Your task to perform on an android device: Open the calendar Image 0: 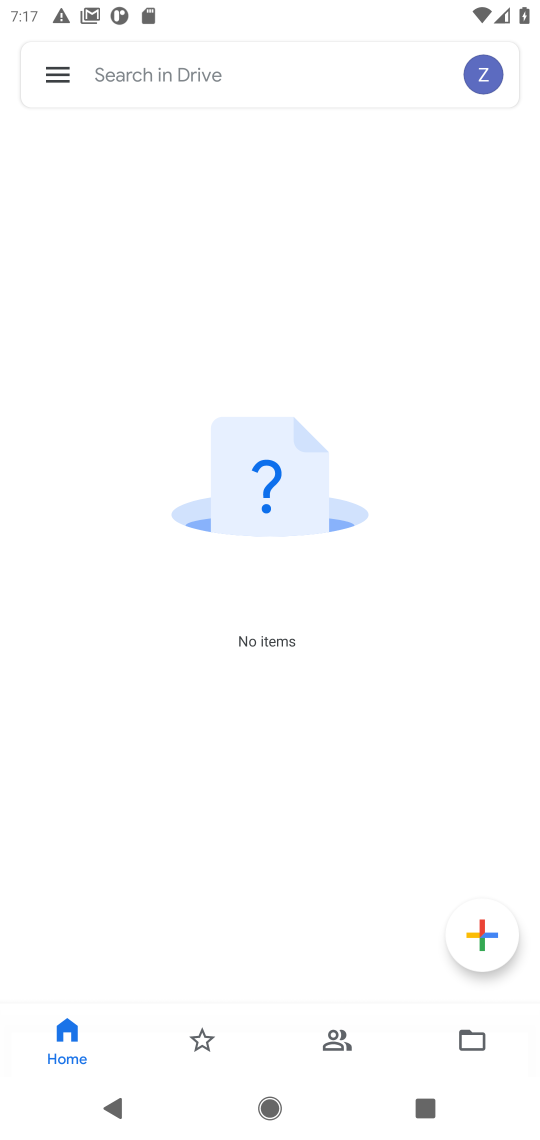
Step 0: press home button
Your task to perform on an android device: Open the calendar Image 1: 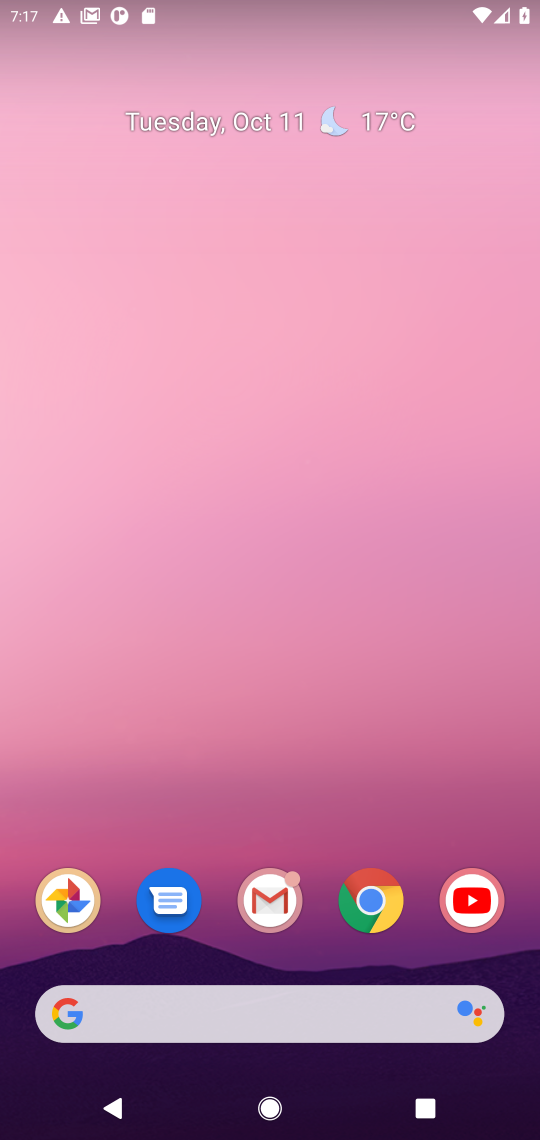
Step 1: drag from (260, 1013) to (413, 222)
Your task to perform on an android device: Open the calendar Image 2: 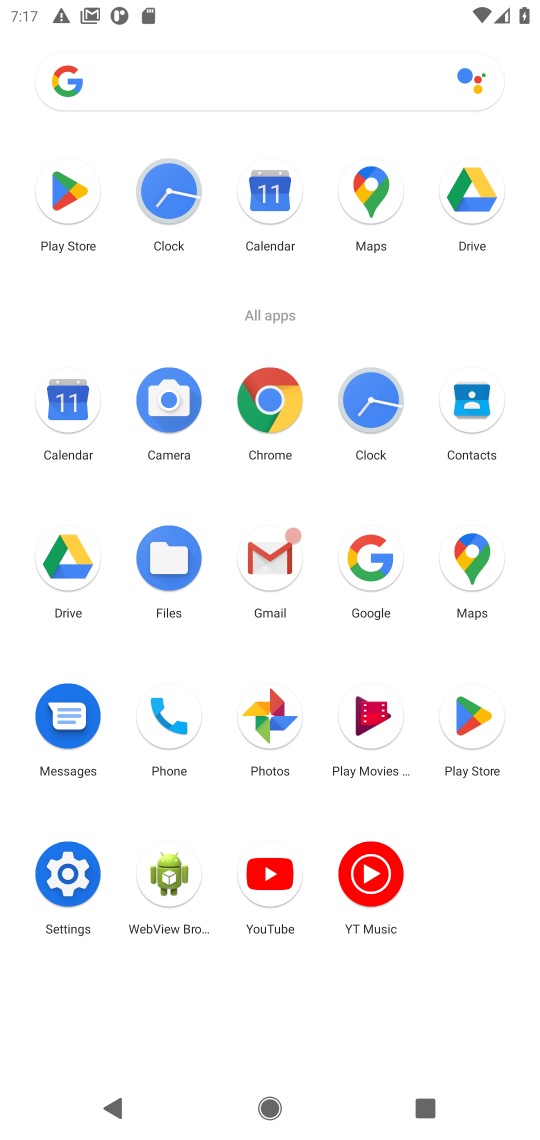
Step 2: click (61, 408)
Your task to perform on an android device: Open the calendar Image 3: 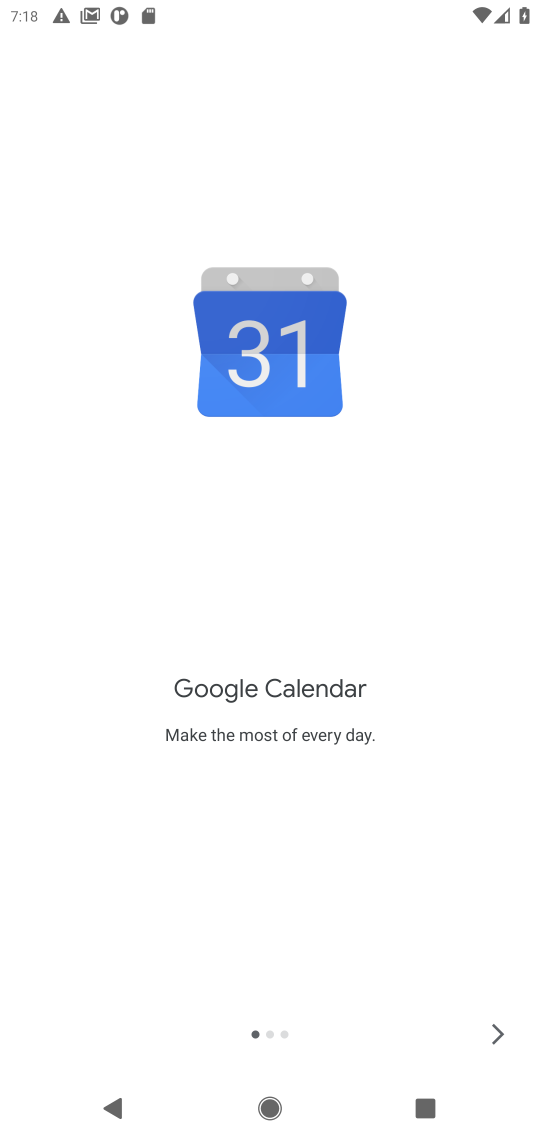
Step 3: click (500, 1022)
Your task to perform on an android device: Open the calendar Image 4: 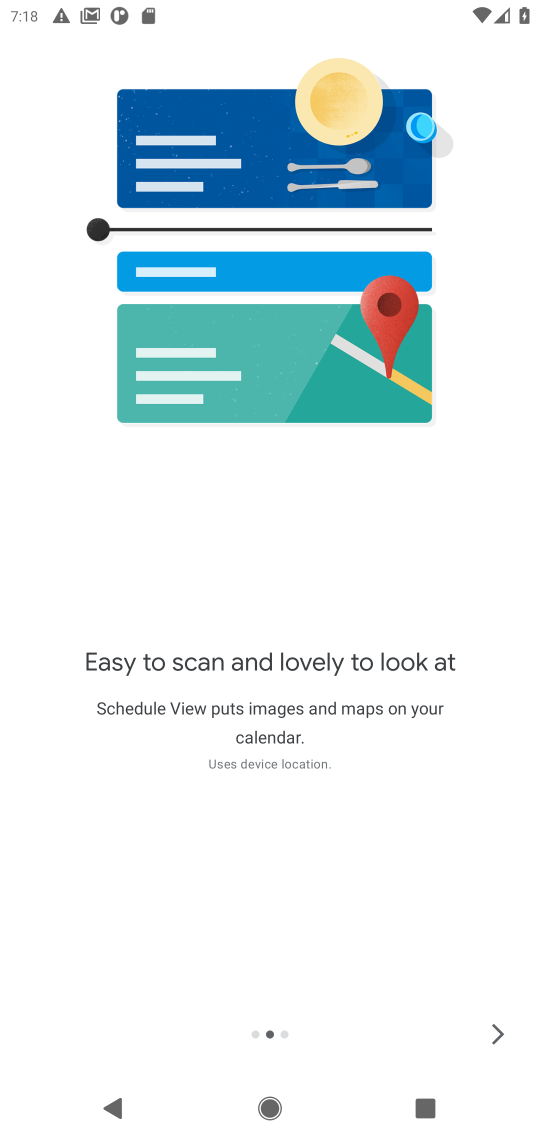
Step 4: click (499, 1030)
Your task to perform on an android device: Open the calendar Image 5: 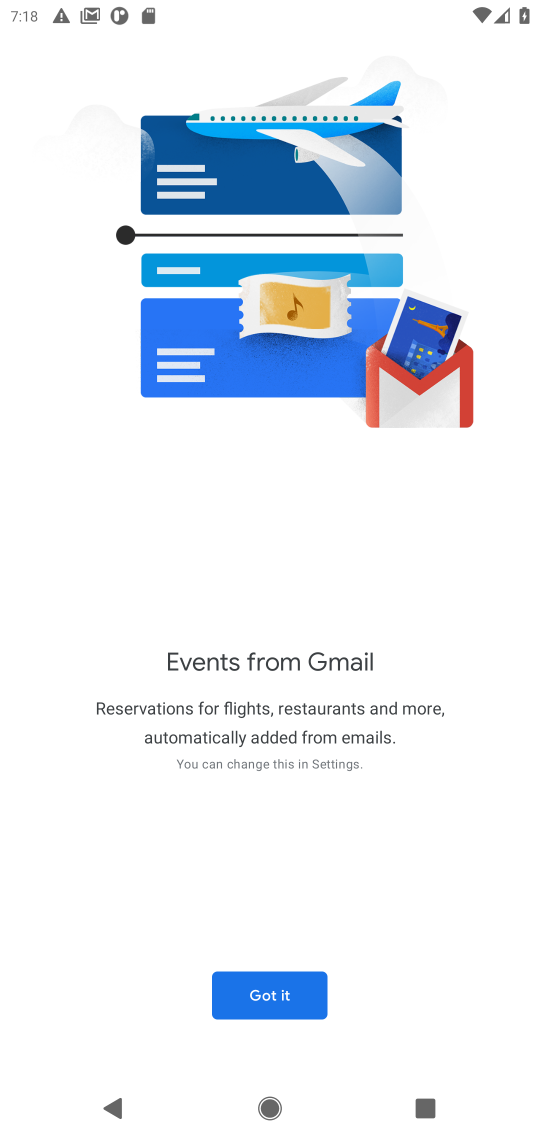
Step 5: click (271, 1005)
Your task to perform on an android device: Open the calendar Image 6: 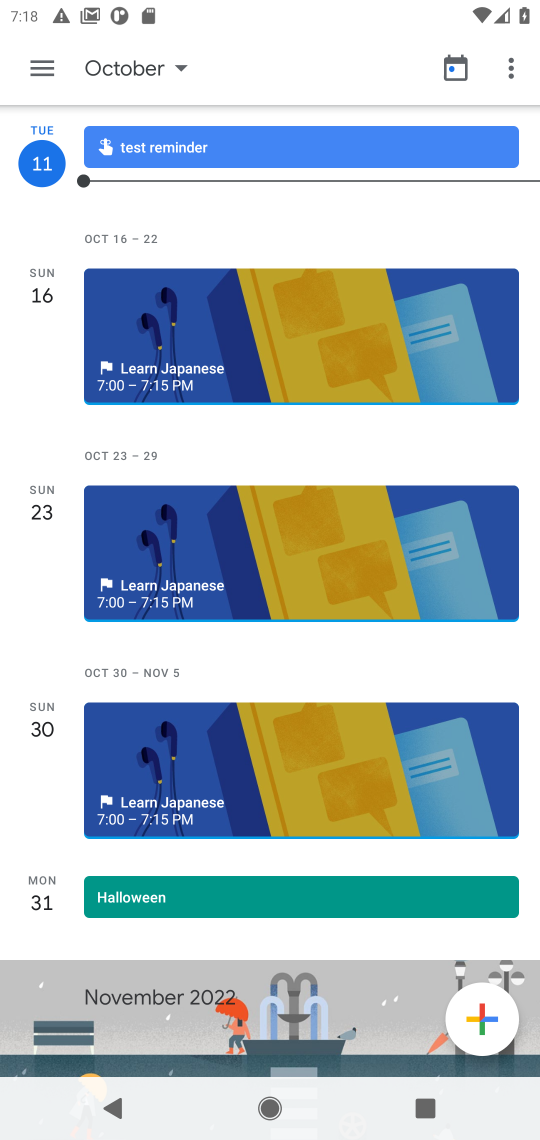
Step 6: task complete